Your task to perform on an android device: set the stopwatch Image 0: 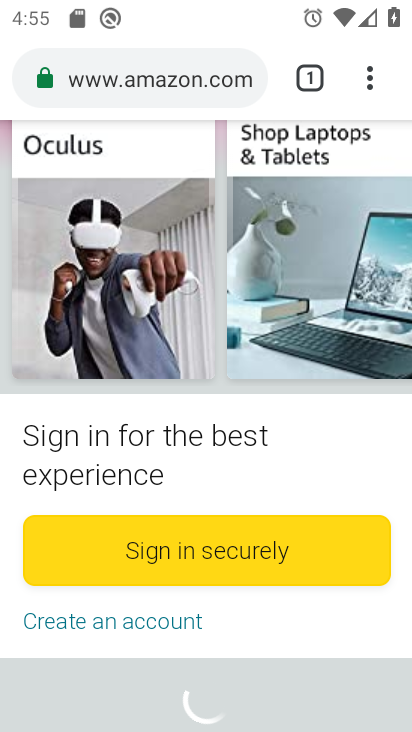
Step 0: press home button
Your task to perform on an android device: set the stopwatch Image 1: 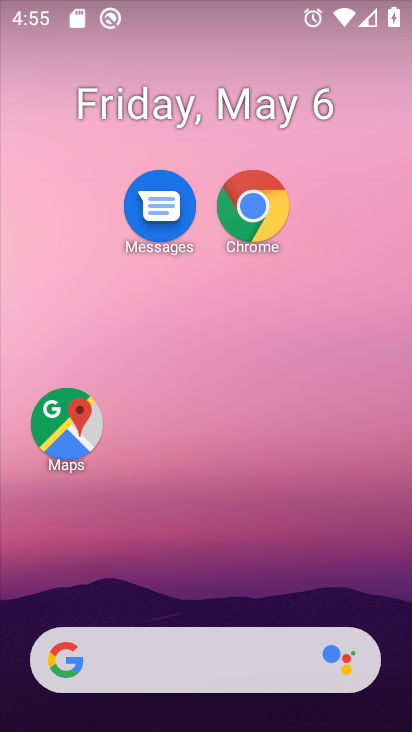
Step 1: drag from (185, 630) to (237, 264)
Your task to perform on an android device: set the stopwatch Image 2: 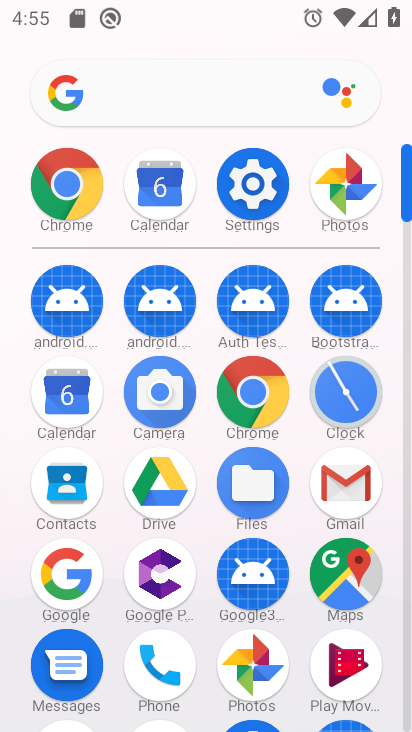
Step 2: click (336, 409)
Your task to perform on an android device: set the stopwatch Image 3: 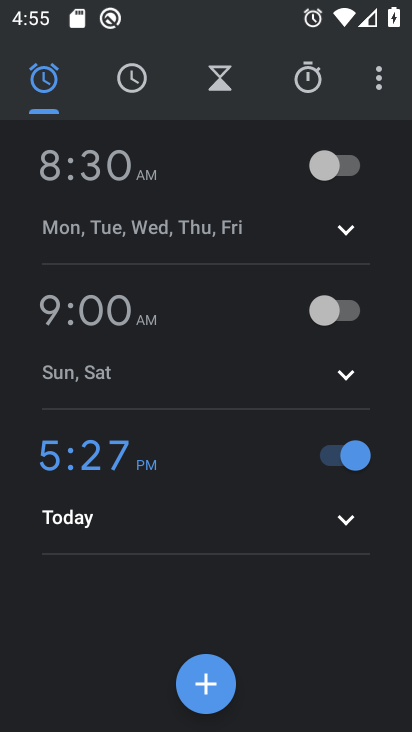
Step 3: click (320, 78)
Your task to perform on an android device: set the stopwatch Image 4: 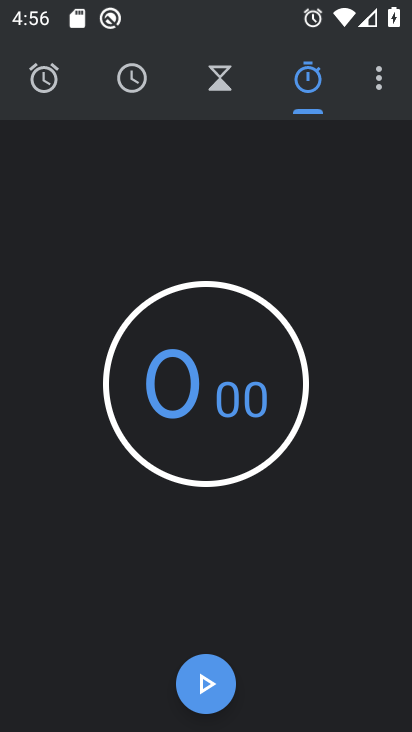
Step 4: click (207, 393)
Your task to perform on an android device: set the stopwatch Image 5: 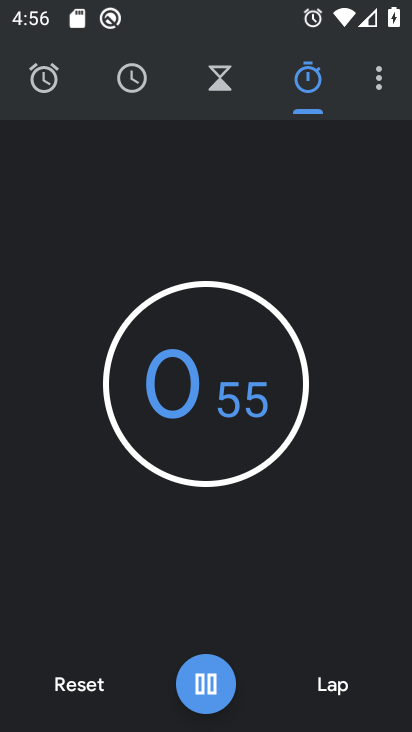
Step 5: click (215, 697)
Your task to perform on an android device: set the stopwatch Image 6: 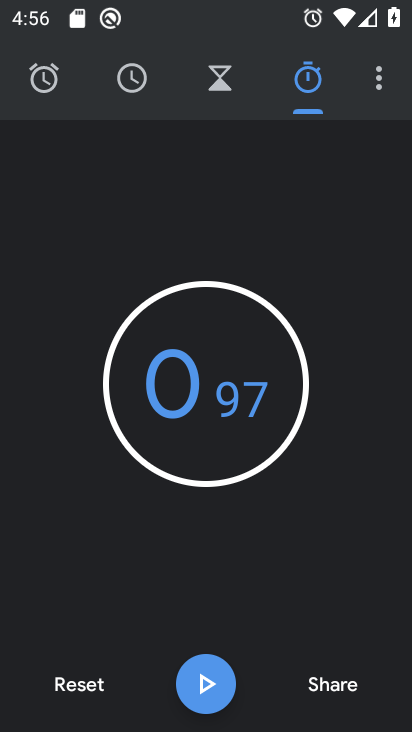
Step 6: task complete